Your task to perform on an android device: turn pop-ups on in chrome Image 0: 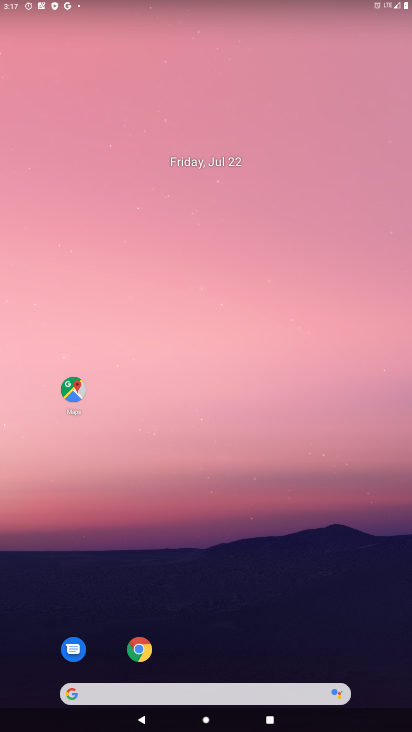
Step 0: drag from (253, 489) to (248, 2)
Your task to perform on an android device: turn pop-ups on in chrome Image 1: 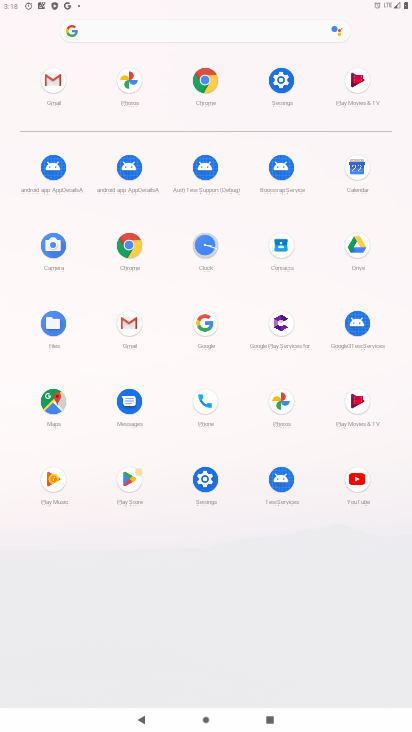
Step 1: click (134, 246)
Your task to perform on an android device: turn pop-ups on in chrome Image 2: 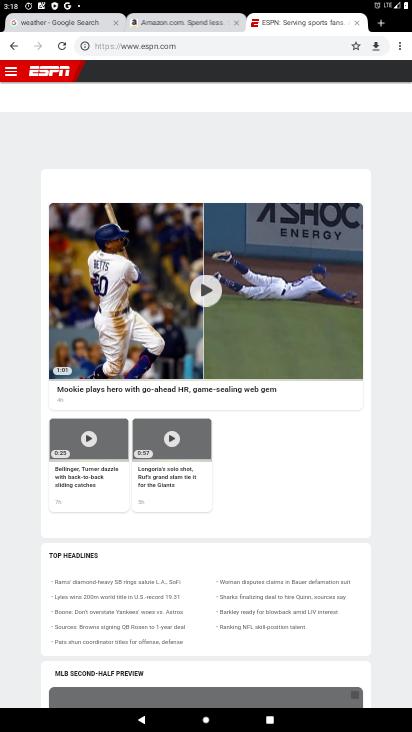
Step 2: drag from (399, 44) to (312, 331)
Your task to perform on an android device: turn pop-ups on in chrome Image 3: 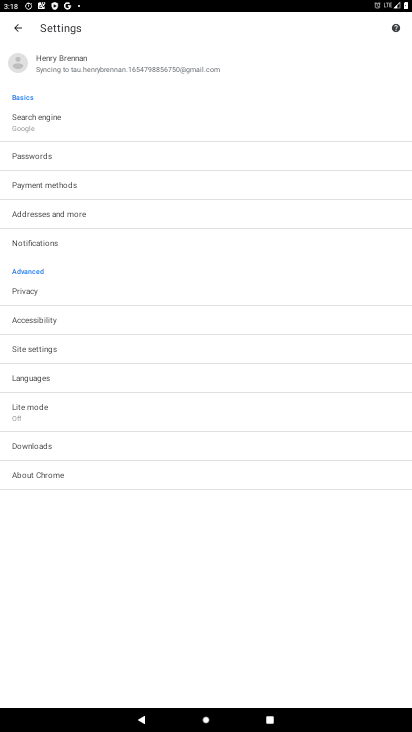
Step 3: click (44, 354)
Your task to perform on an android device: turn pop-ups on in chrome Image 4: 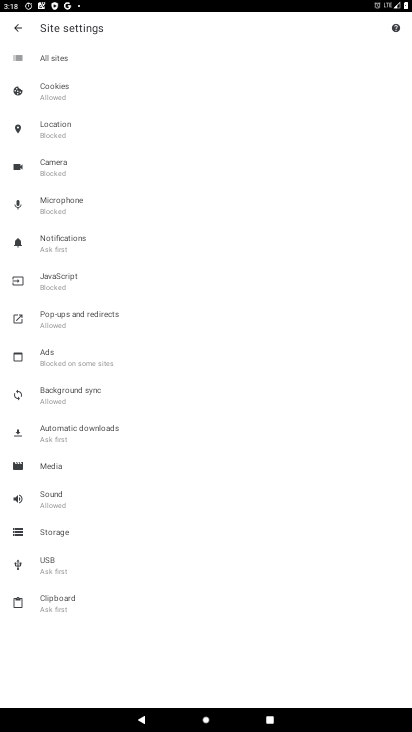
Step 4: click (96, 318)
Your task to perform on an android device: turn pop-ups on in chrome Image 5: 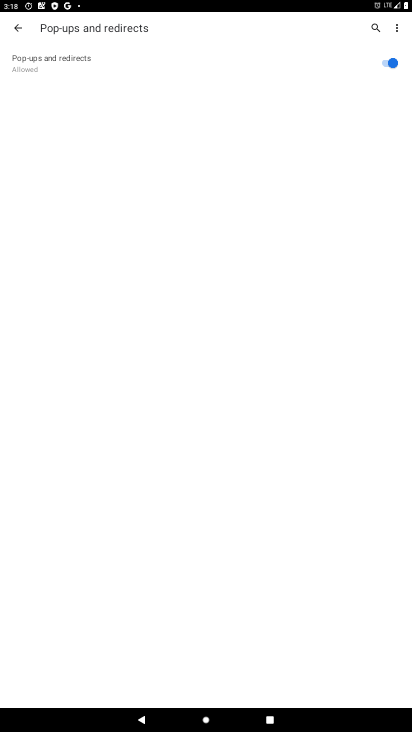
Step 5: task complete